Your task to perform on an android device: Open Chrome and go to settings Image 0: 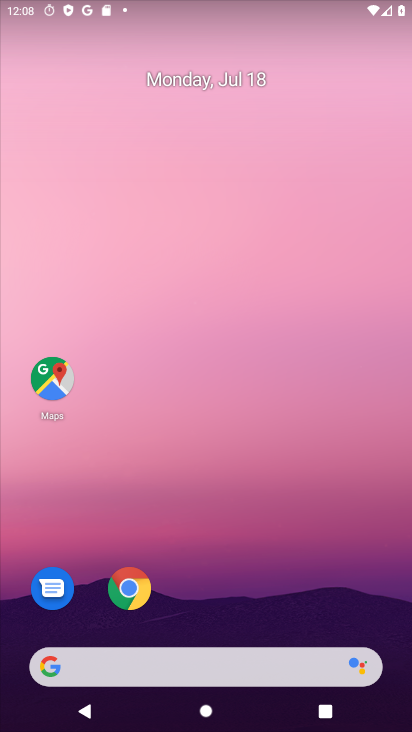
Step 0: click (140, 585)
Your task to perform on an android device: Open Chrome and go to settings Image 1: 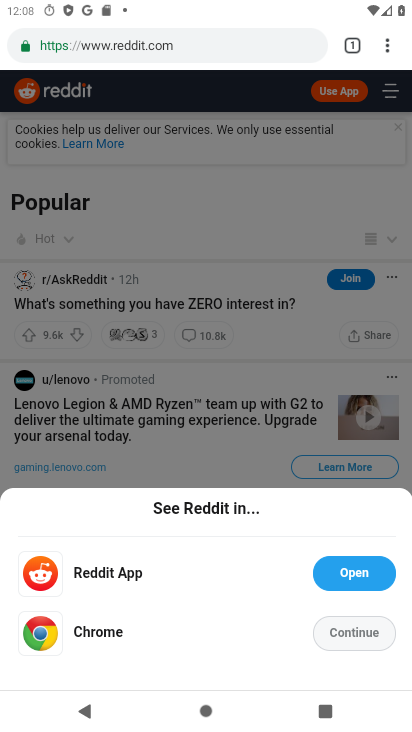
Step 1: click (385, 32)
Your task to perform on an android device: Open Chrome and go to settings Image 2: 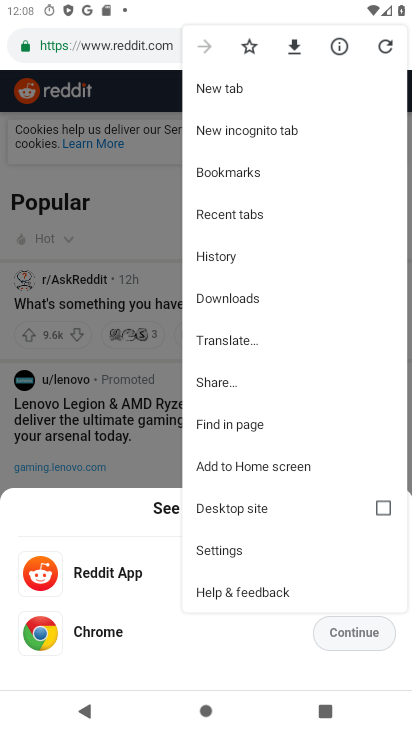
Step 2: click (227, 558)
Your task to perform on an android device: Open Chrome and go to settings Image 3: 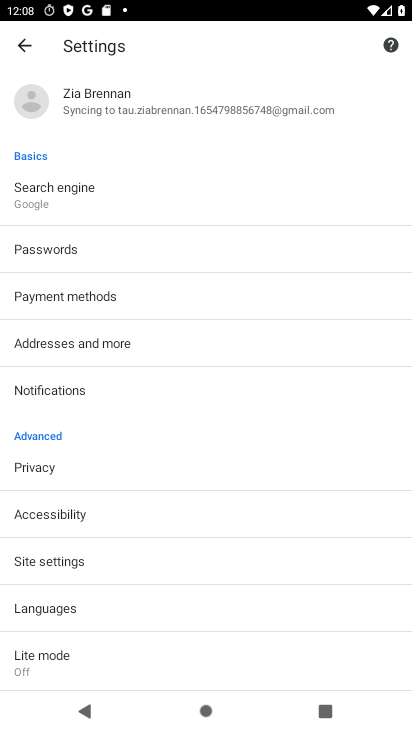
Step 3: task complete